Your task to perform on an android device: Show me productivity apps on the Play Store Image 0: 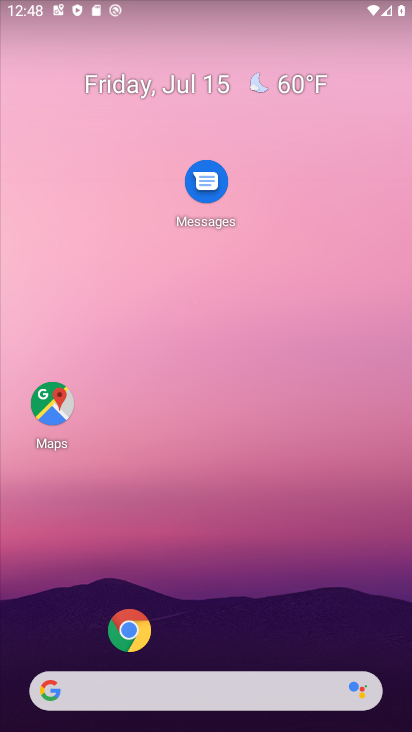
Step 0: drag from (71, 454) to (107, 289)
Your task to perform on an android device: Show me productivity apps on the Play Store Image 1: 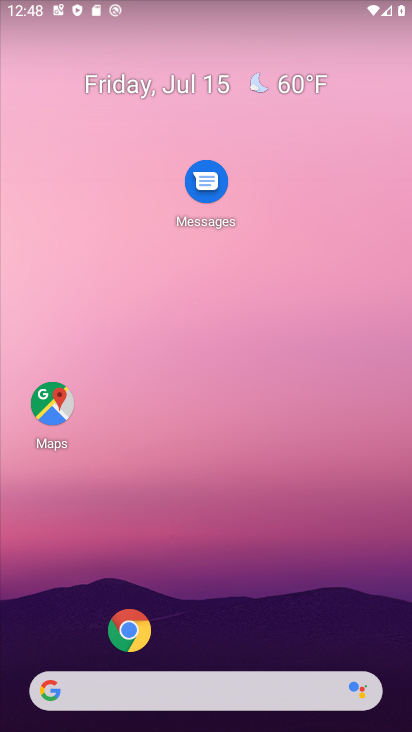
Step 1: drag from (17, 693) to (196, 21)
Your task to perform on an android device: Show me productivity apps on the Play Store Image 2: 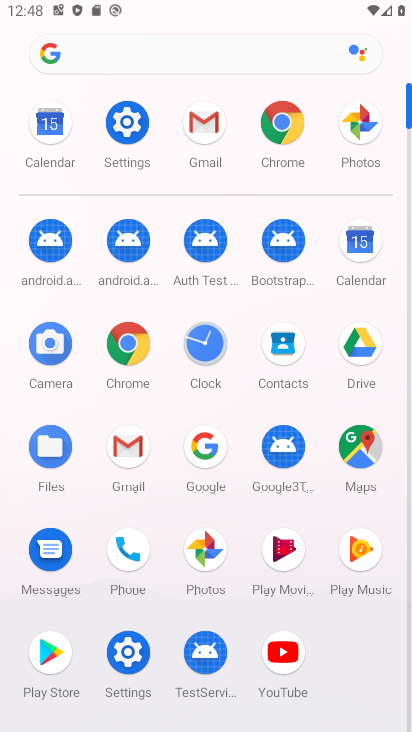
Step 2: click (31, 648)
Your task to perform on an android device: Show me productivity apps on the Play Store Image 3: 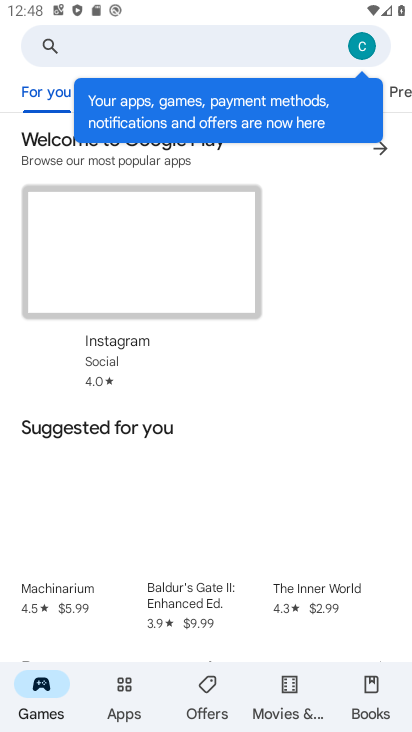
Step 3: click (104, 48)
Your task to perform on an android device: Show me productivity apps on the Play Store Image 4: 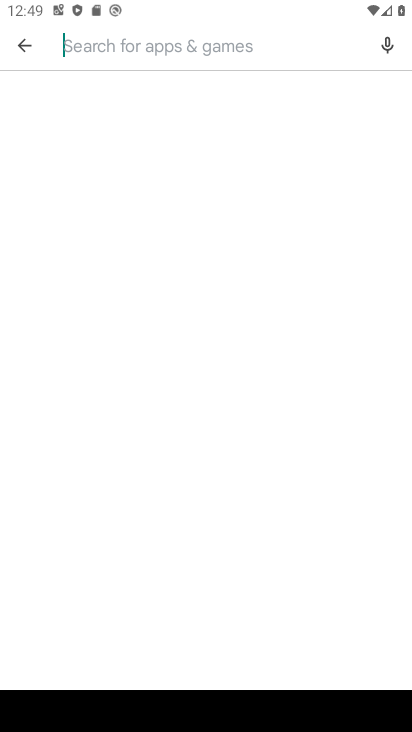
Step 4: type "productivity apps"
Your task to perform on an android device: Show me productivity apps on the Play Store Image 5: 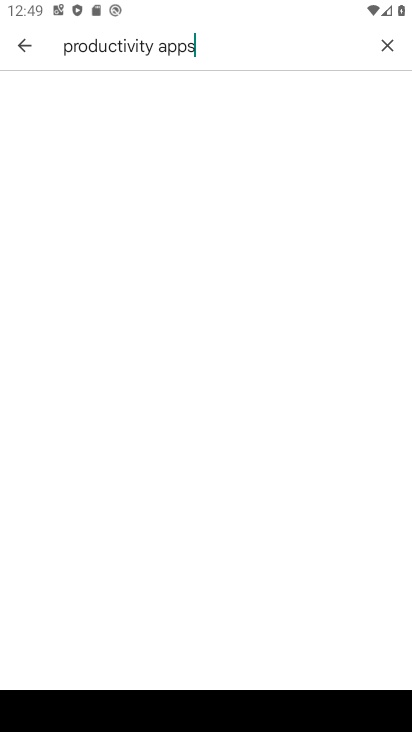
Step 5: type ""
Your task to perform on an android device: Show me productivity apps on the Play Store Image 6: 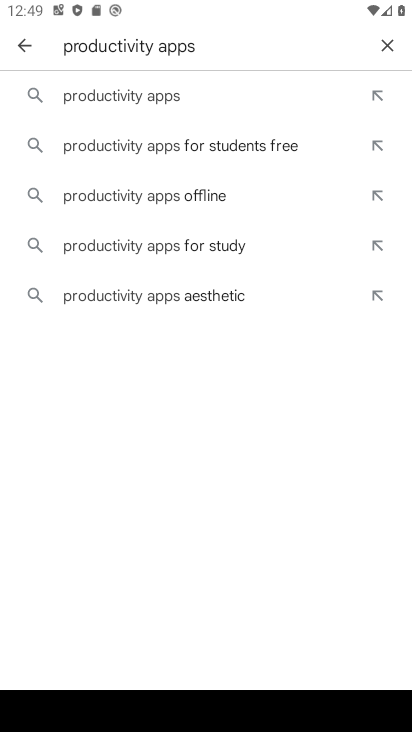
Step 6: click (109, 91)
Your task to perform on an android device: Show me productivity apps on the Play Store Image 7: 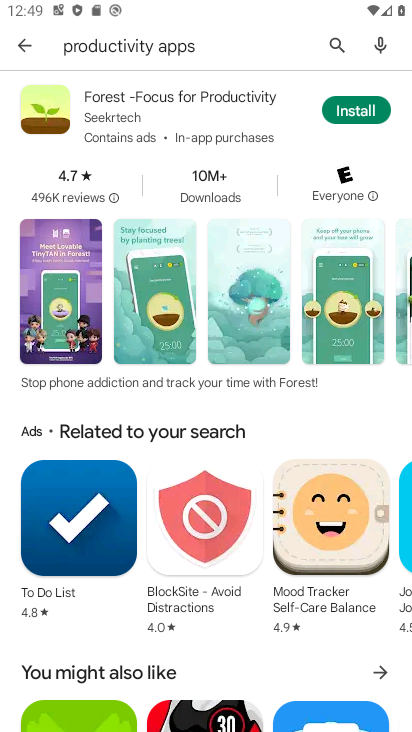
Step 7: task complete